Your task to perform on an android device: turn on airplane mode Image 0: 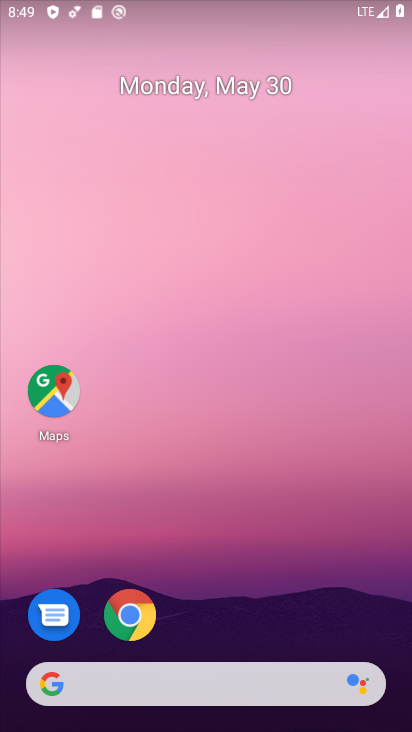
Step 0: drag from (259, 16) to (156, 629)
Your task to perform on an android device: turn on airplane mode Image 1: 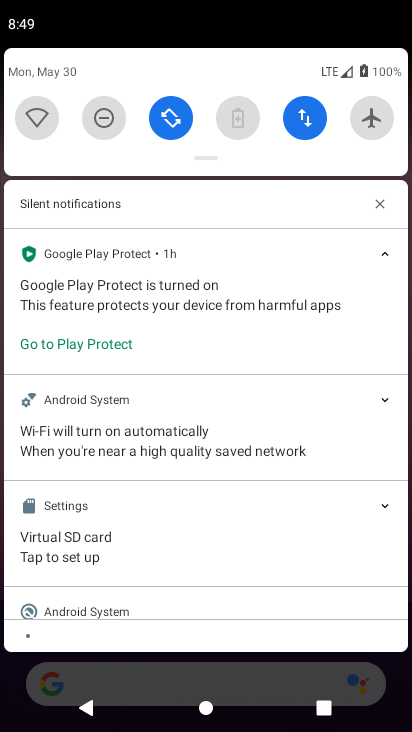
Step 1: click (381, 103)
Your task to perform on an android device: turn on airplane mode Image 2: 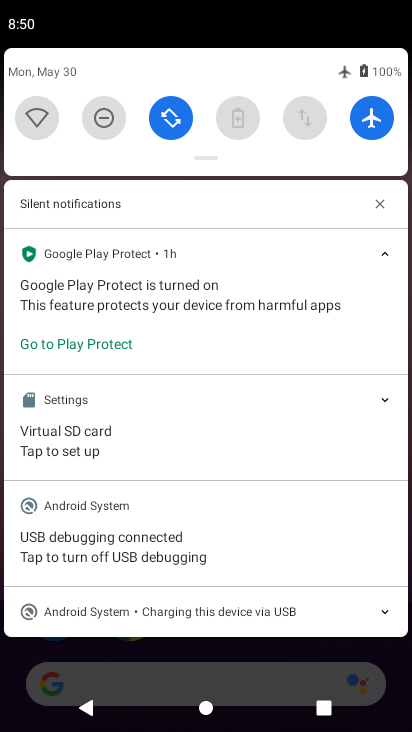
Step 2: task complete